Your task to perform on an android device: Open Maps and search for coffee Image 0: 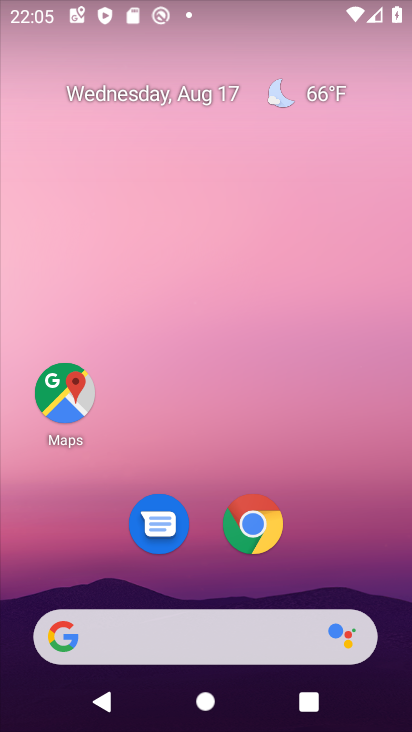
Step 0: click (68, 389)
Your task to perform on an android device: Open Maps and search for coffee Image 1: 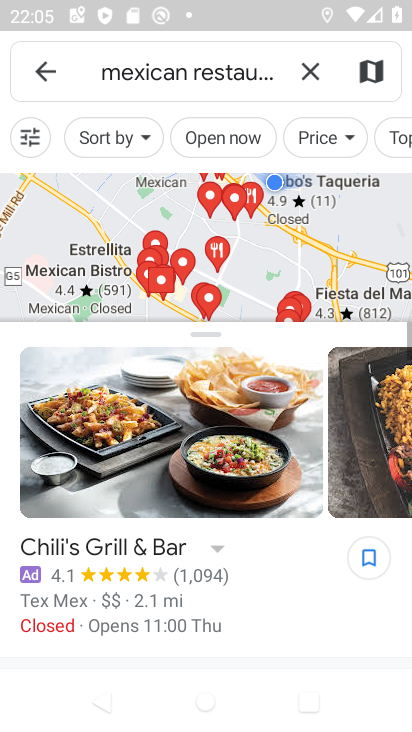
Step 1: click (46, 67)
Your task to perform on an android device: Open Maps and search for coffee Image 2: 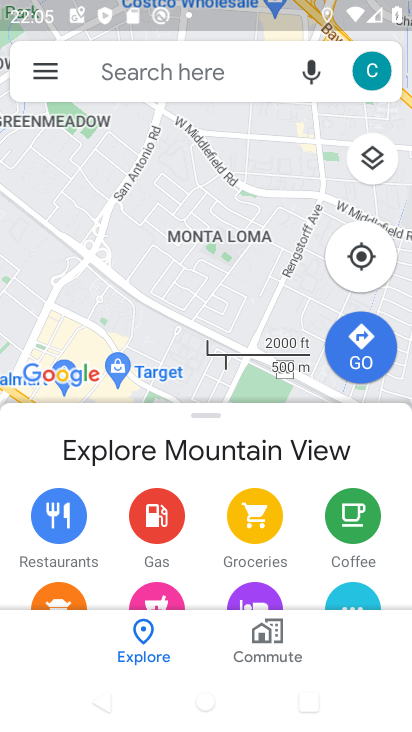
Step 2: click (128, 68)
Your task to perform on an android device: Open Maps and search for coffee Image 3: 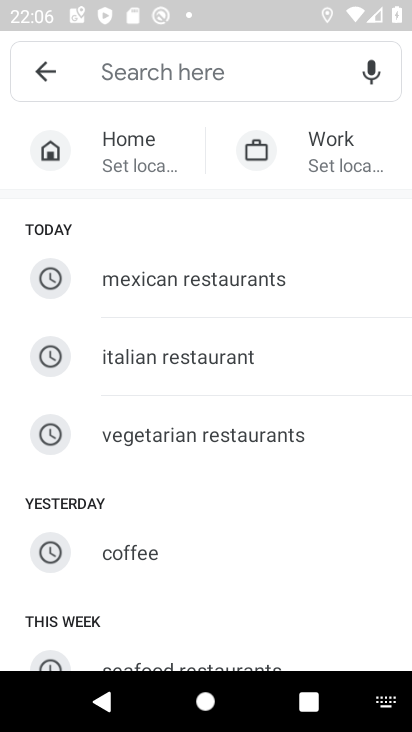
Step 3: click (143, 555)
Your task to perform on an android device: Open Maps and search for coffee Image 4: 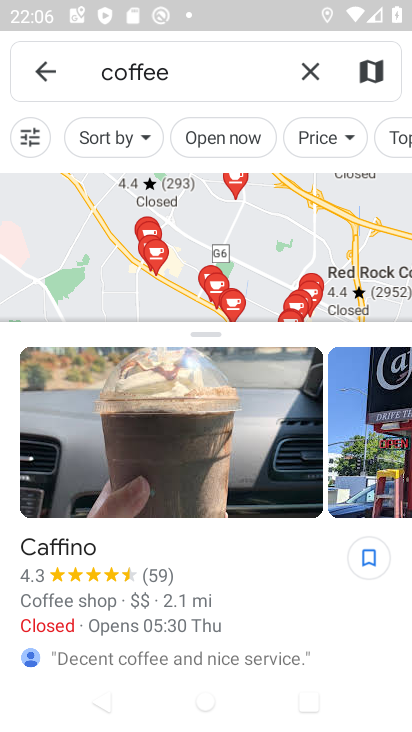
Step 4: task complete